Your task to perform on an android device: change notifications settings Image 0: 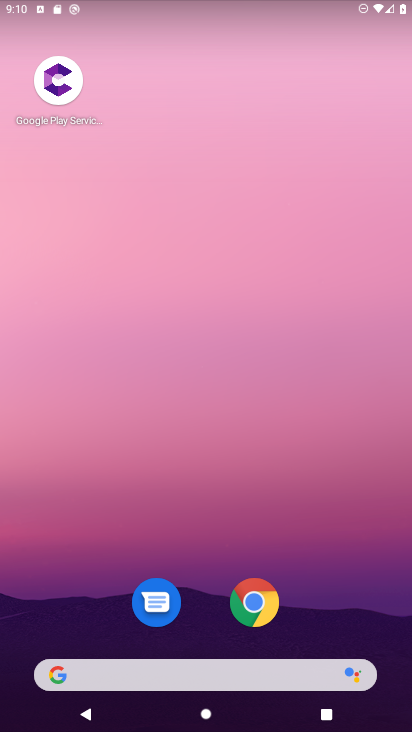
Step 0: drag from (229, 634) to (132, 138)
Your task to perform on an android device: change notifications settings Image 1: 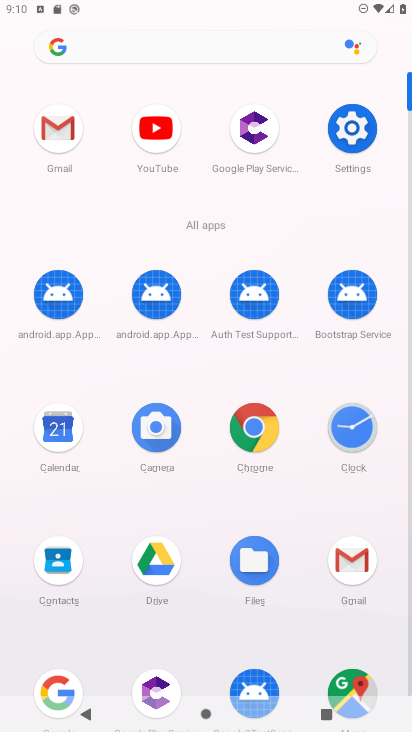
Step 1: click (363, 127)
Your task to perform on an android device: change notifications settings Image 2: 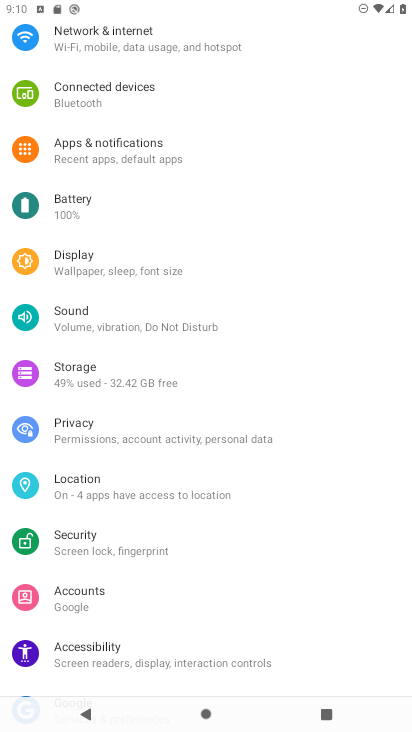
Step 2: click (164, 125)
Your task to perform on an android device: change notifications settings Image 3: 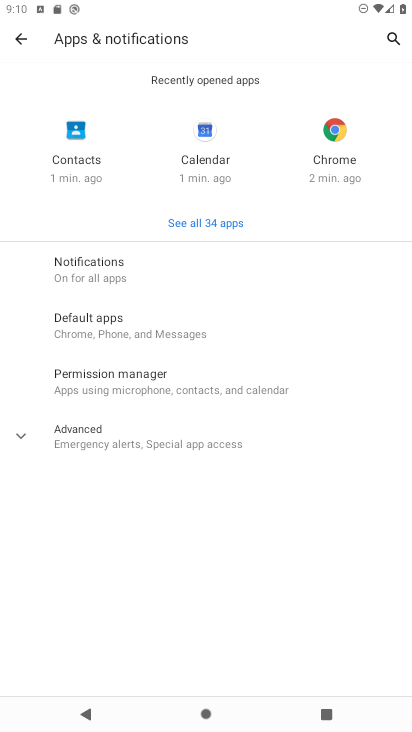
Step 3: click (116, 268)
Your task to perform on an android device: change notifications settings Image 4: 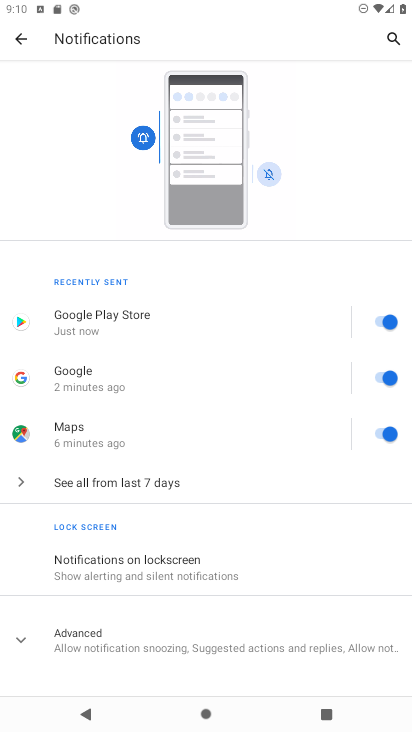
Step 4: click (192, 605)
Your task to perform on an android device: change notifications settings Image 5: 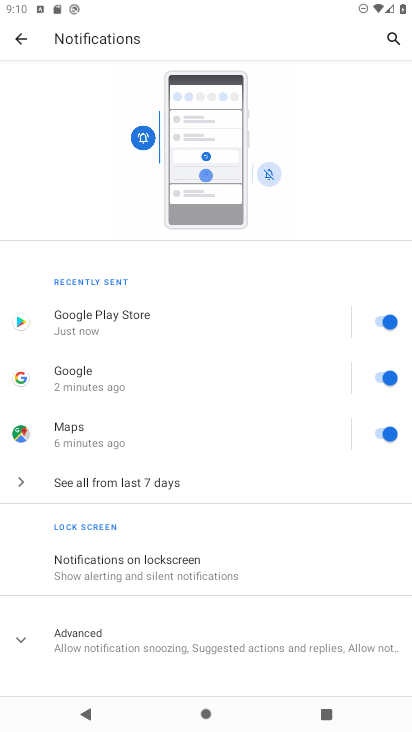
Step 5: drag from (192, 605) to (205, 225)
Your task to perform on an android device: change notifications settings Image 6: 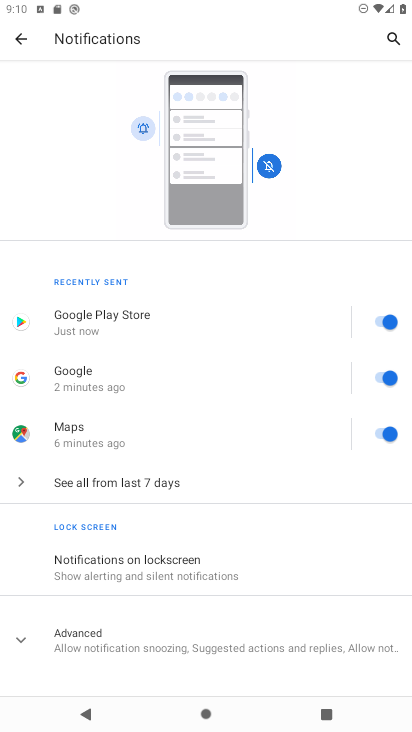
Step 6: click (231, 673)
Your task to perform on an android device: change notifications settings Image 7: 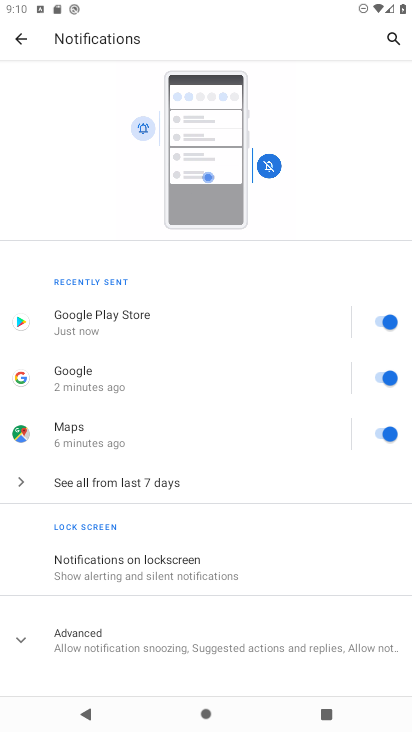
Step 7: click (177, 650)
Your task to perform on an android device: change notifications settings Image 8: 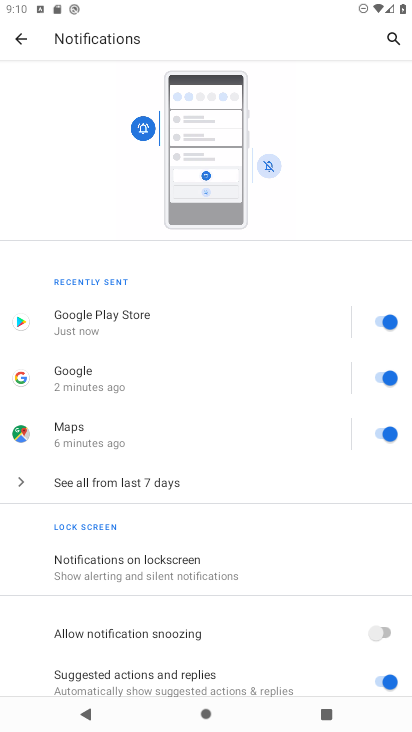
Step 8: drag from (177, 650) to (174, 260)
Your task to perform on an android device: change notifications settings Image 9: 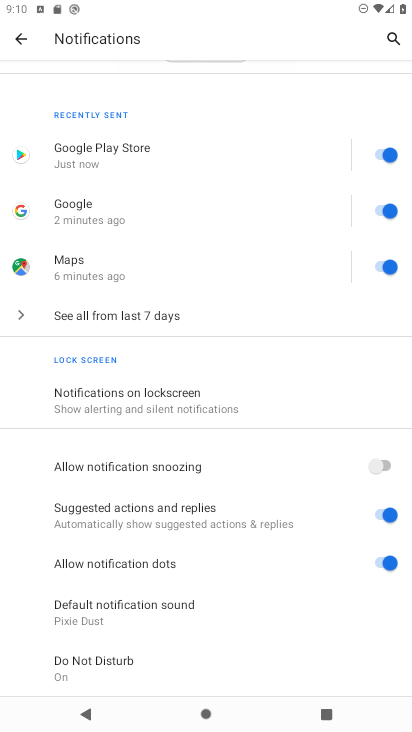
Step 9: click (402, 564)
Your task to perform on an android device: change notifications settings Image 10: 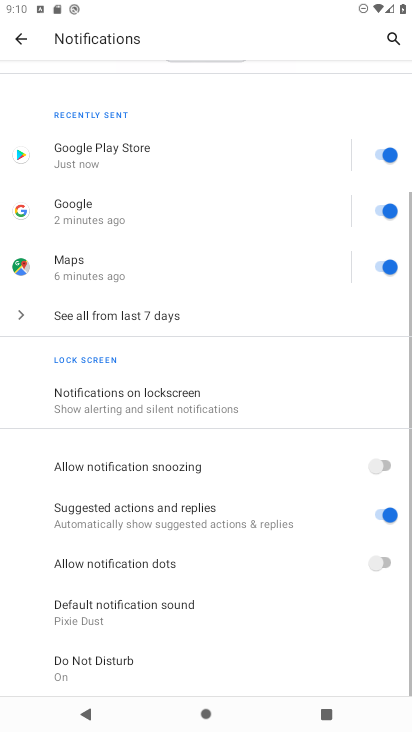
Step 10: click (390, 515)
Your task to perform on an android device: change notifications settings Image 11: 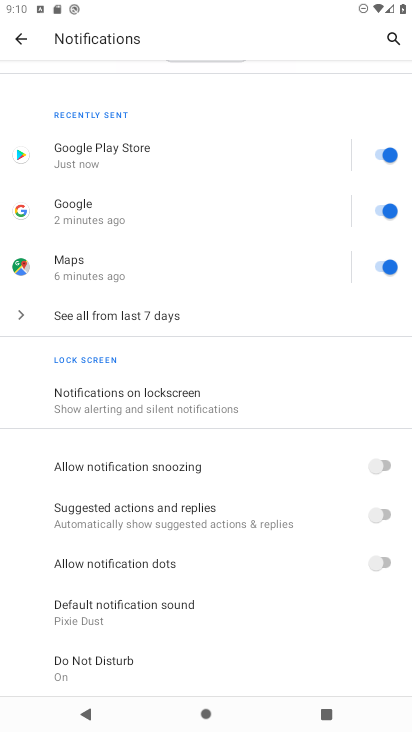
Step 11: click (384, 474)
Your task to perform on an android device: change notifications settings Image 12: 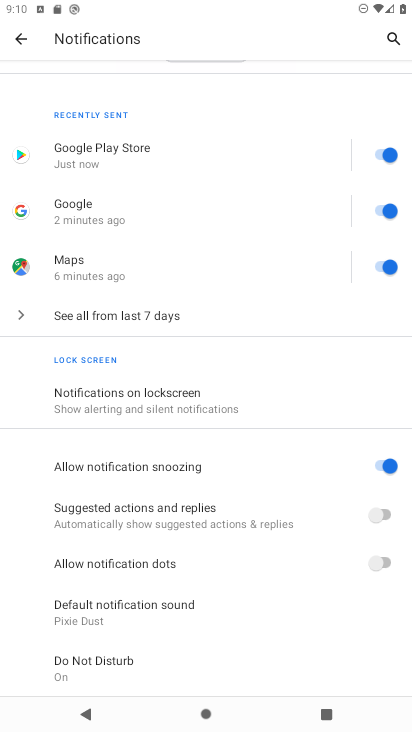
Step 12: task complete